Your task to perform on an android device: Open settings on Google Maps Image 0: 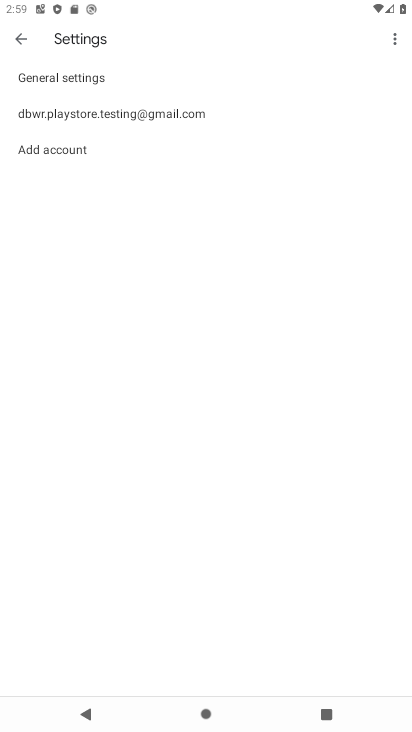
Step 0: press home button
Your task to perform on an android device: Open settings on Google Maps Image 1: 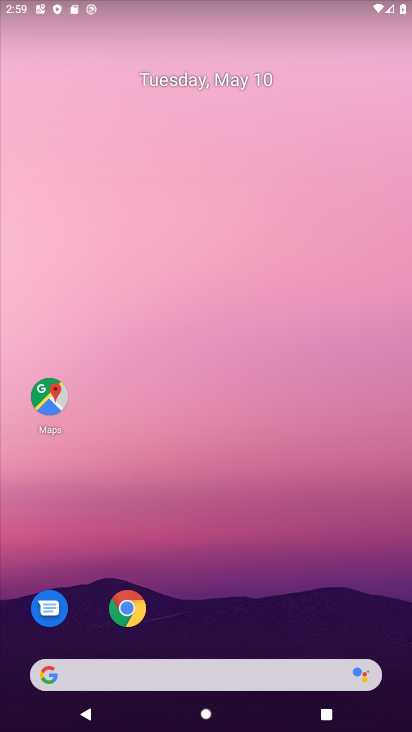
Step 1: click (216, 622)
Your task to perform on an android device: Open settings on Google Maps Image 2: 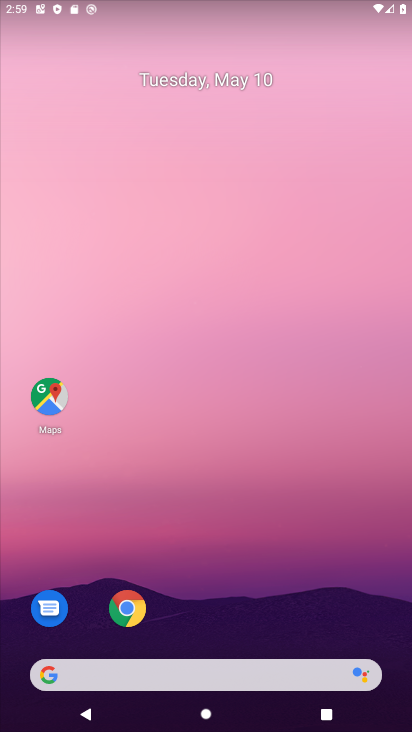
Step 2: click (40, 410)
Your task to perform on an android device: Open settings on Google Maps Image 3: 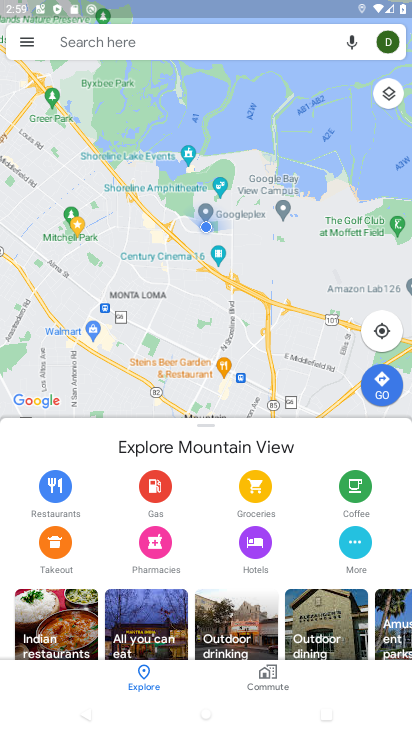
Step 3: click (35, 40)
Your task to perform on an android device: Open settings on Google Maps Image 4: 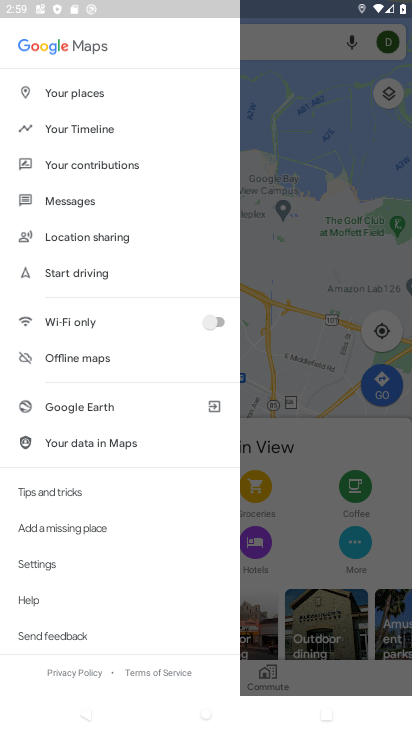
Step 4: click (46, 562)
Your task to perform on an android device: Open settings on Google Maps Image 5: 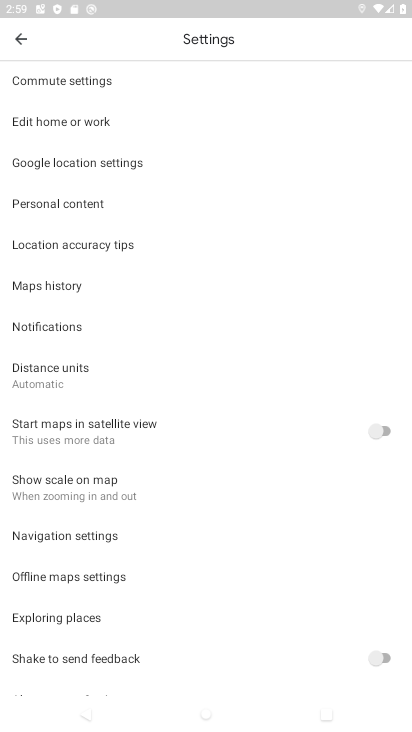
Step 5: task complete